Your task to perform on an android device: Turn off the flashlight Image 0: 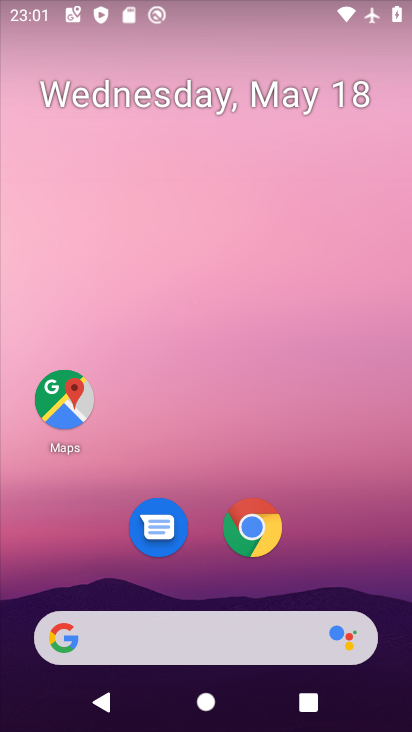
Step 0: drag from (326, 588) to (335, 288)
Your task to perform on an android device: Turn off the flashlight Image 1: 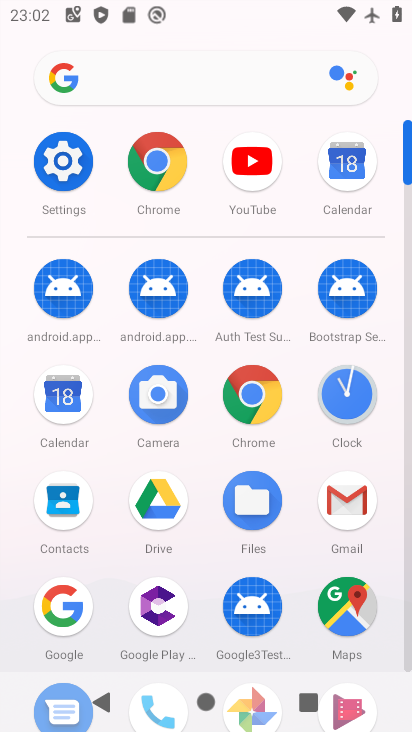
Step 1: click (41, 190)
Your task to perform on an android device: Turn off the flashlight Image 2: 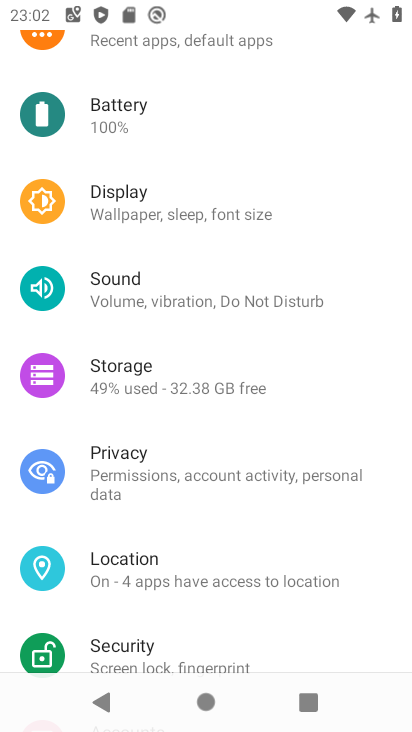
Step 2: task complete